Your task to perform on an android device: Go to settings Image 0: 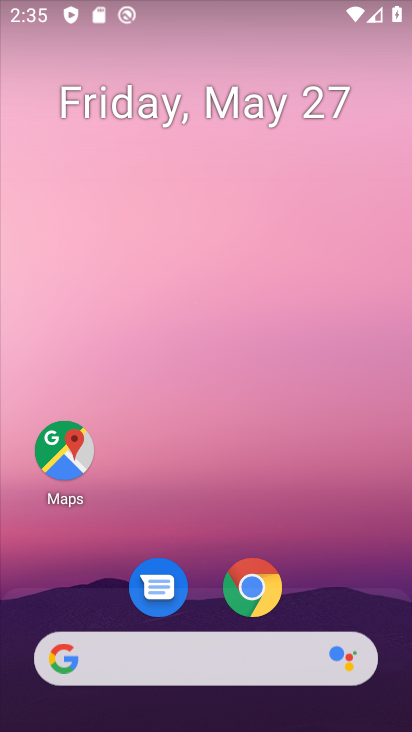
Step 0: drag from (165, 727) to (129, 132)
Your task to perform on an android device: Go to settings Image 1: 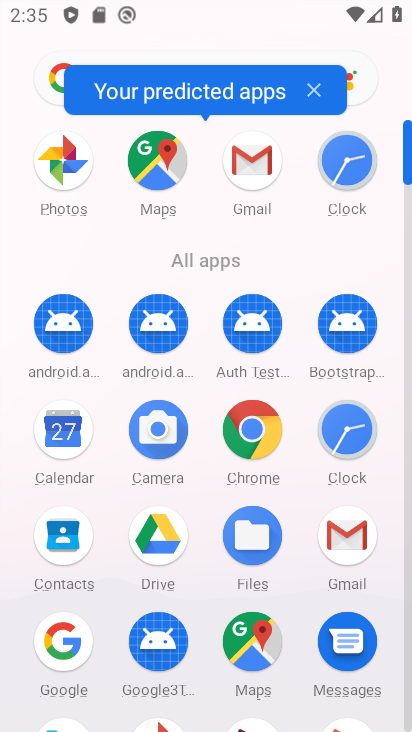
Step 1: drag from (99, 691) to (74, 177)
Your task to perform on an android device: Go to settings Image 2: 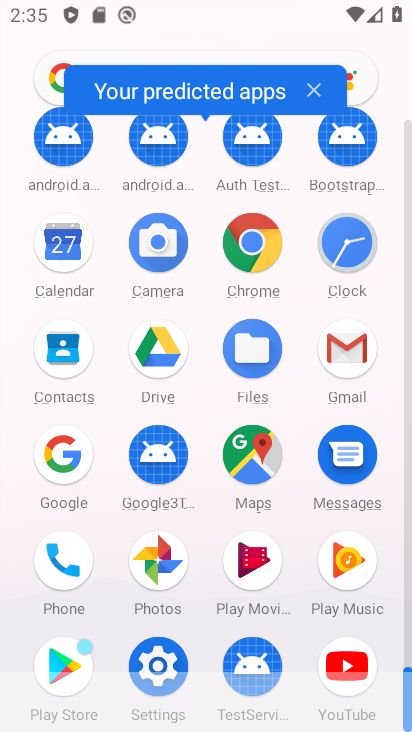
Step 2: click (157, 667)
Your task to perform on an android device: Go to settings Image 3: 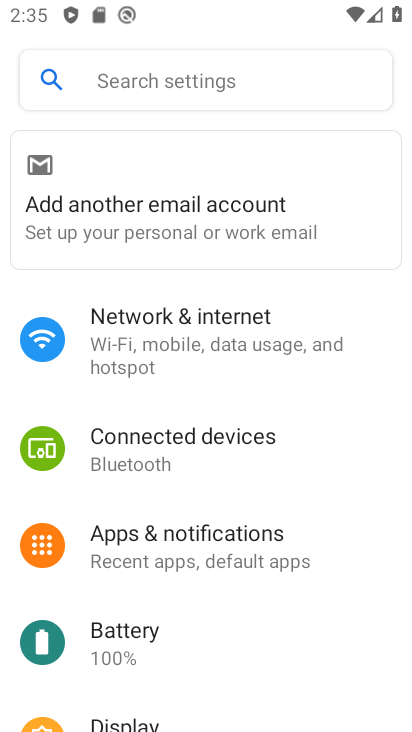
Step 3: task complete